Your task to perform on an android device: open chrome and create a bookmark for the current page Image 0: 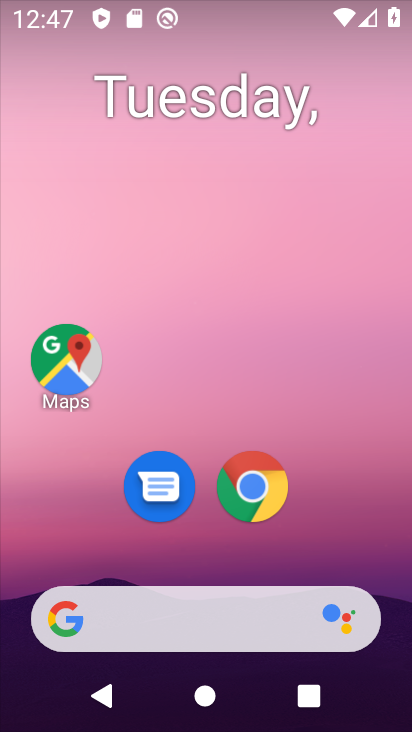
Step 0: click (269, 500)
Your task to perform on an android device: open chrome and create a bookmark for the current page Image 1: 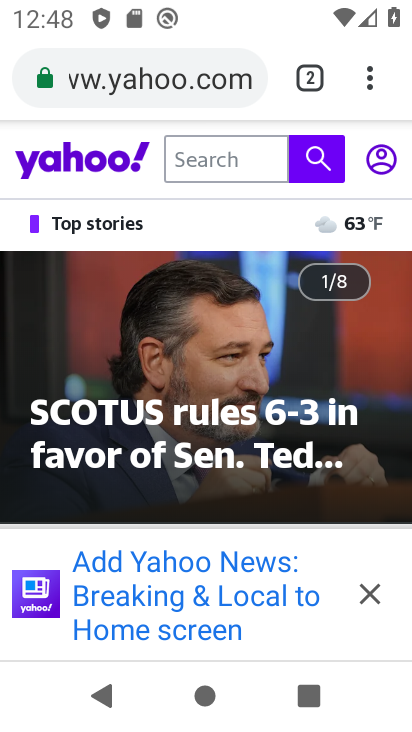
Step 1: task complete